Your task to perform on an android device: Is it going to rain tomorrow? Image 0: 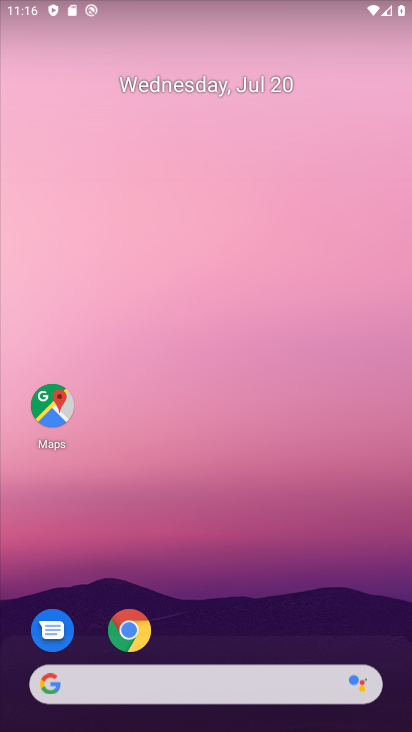
Step 0: click (86, 692)
Your task to perform on an android device: Is it going to rain tomorrow? Image 1: 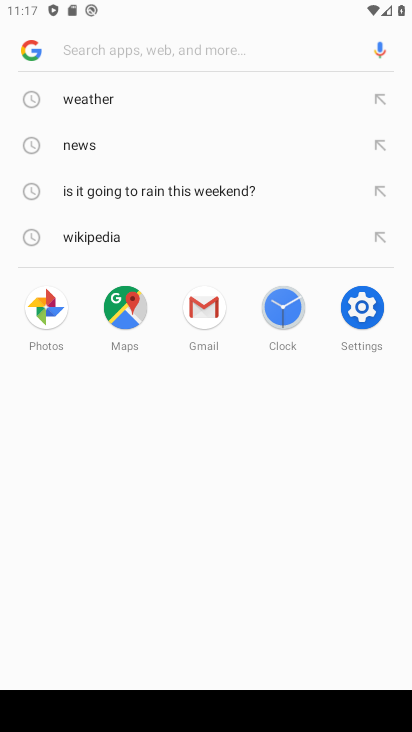
Step 1: type "Is it going to rain tomorrow?"
Your task to perform on an android device: Is it going to rain tomorrow? Image 2: 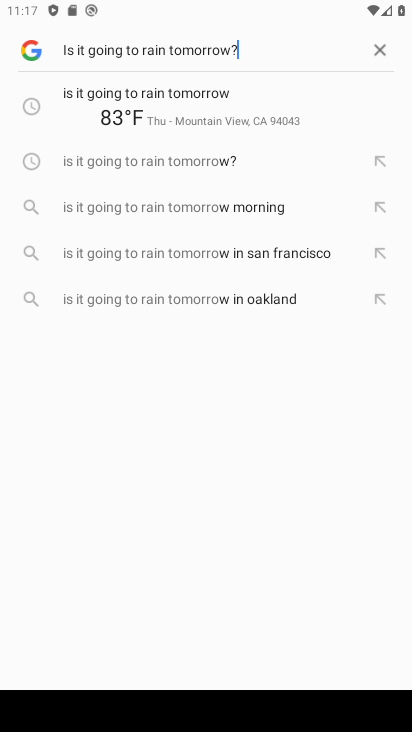
Step 2: type ""
Your task to perform on an android device: Is it going to rain tomorrow? Image 3: 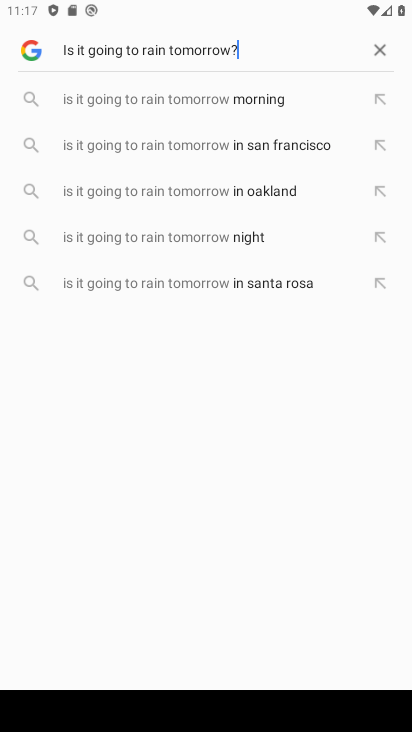
Step 3: type ""
Your task to perform on an android device: Is it going to rain tomorrow? Image 4: 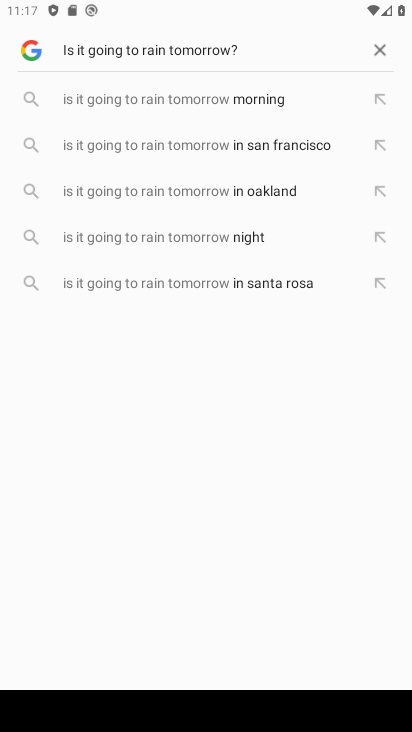
Step 4: type ""
Your task to perform on an android device: Is it going to rain tomorrow? Image 5: 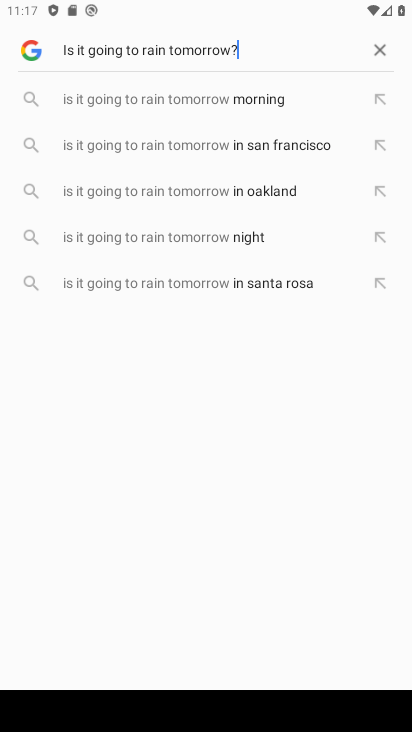
Step 5: task complete